Your task to perform on an android device: What's the weather going to be this weekend? Image 0: 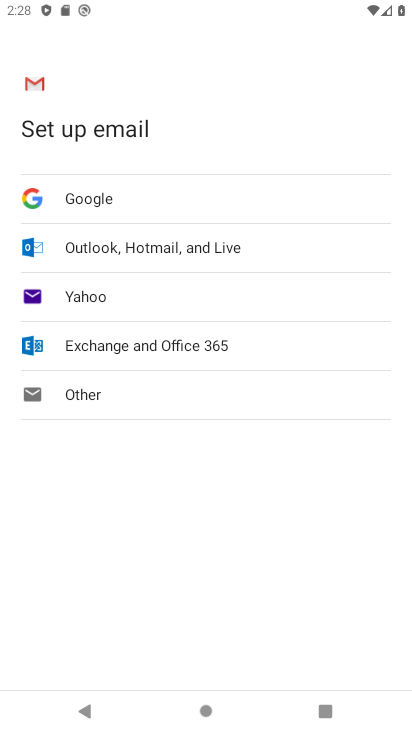
Step 0: press home button
Your task to perform on an android device: What's the weather going to be this weekend? Image 1: 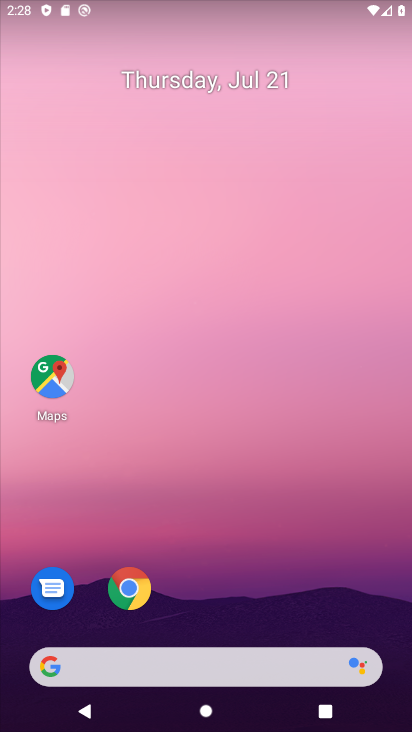
Step 1: drag from (200, 641) to (210, 269)
Your task to perform on an android device: What's the weather going to be this weekend? Image 2: 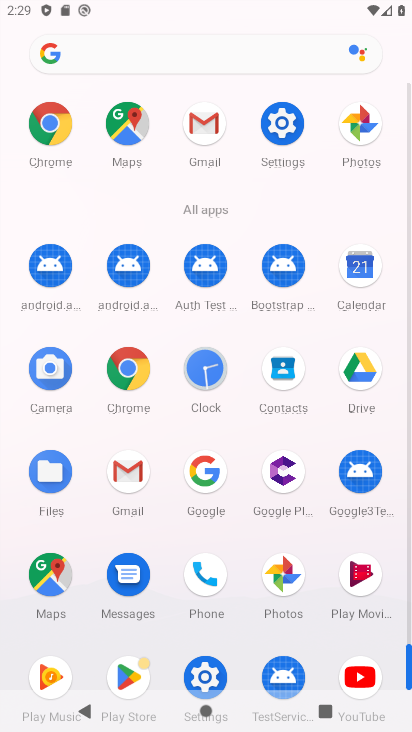
Step 2: click (196, 485)
Your task to perform on an android device: What's the weather going to be this weekend? Image 3: 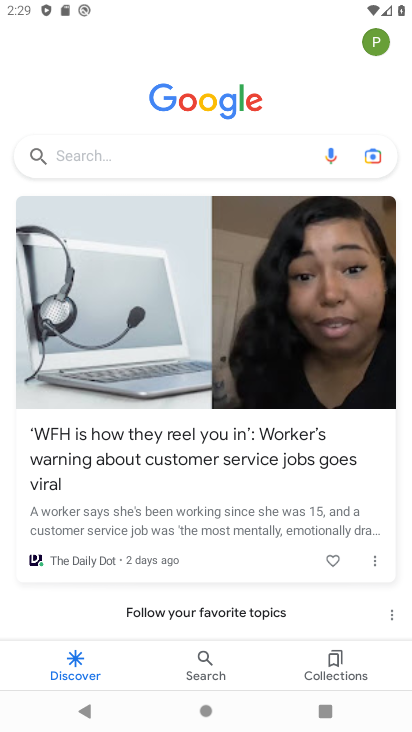
Step 3: click (211, 154)
Your task to perform on an android device: What's the weather going to be this weekend? Image 4: 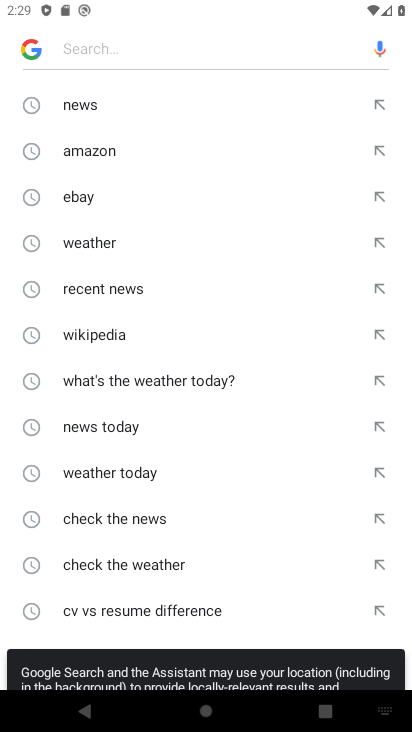
Step 4: click (97, 239)
Your task to perform on an android device: What's the weather going to be this weekend? Image 5: 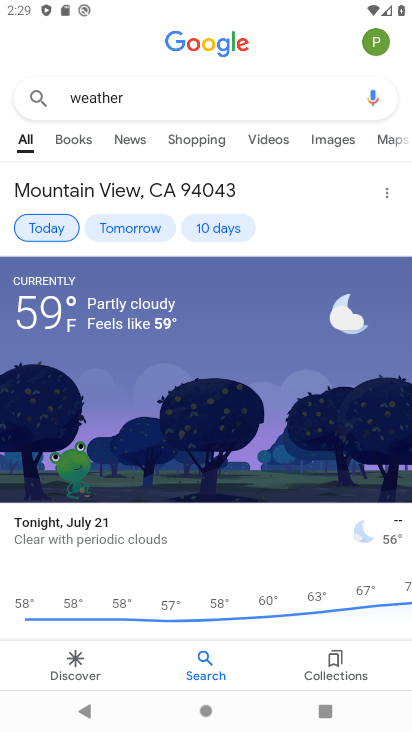
Step 5: click (200, 229)
Your task to perform on an android device: What's the weather going to be this weekend? Image 6: 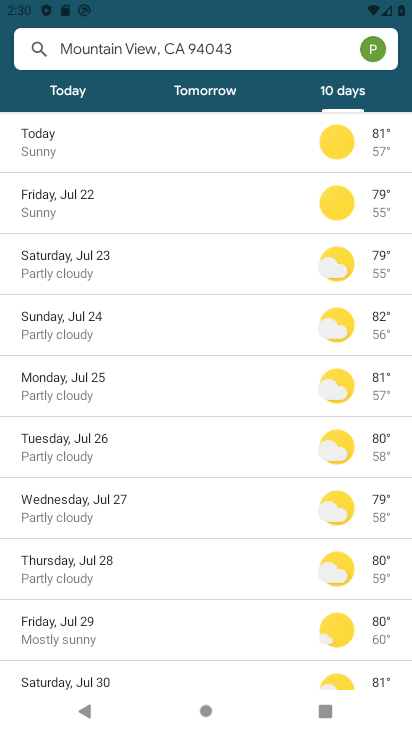
Step 6: task complete